Your task to perform on an android device: Open Youtube and go to the subscriptions tab Image 0: 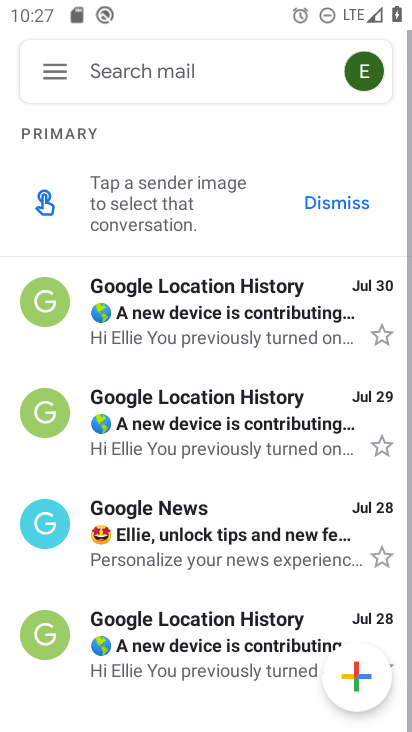
Step 0: press home button
Your task to perform on an android device: Open Youtube and go to the subscriptions tab Image 1: 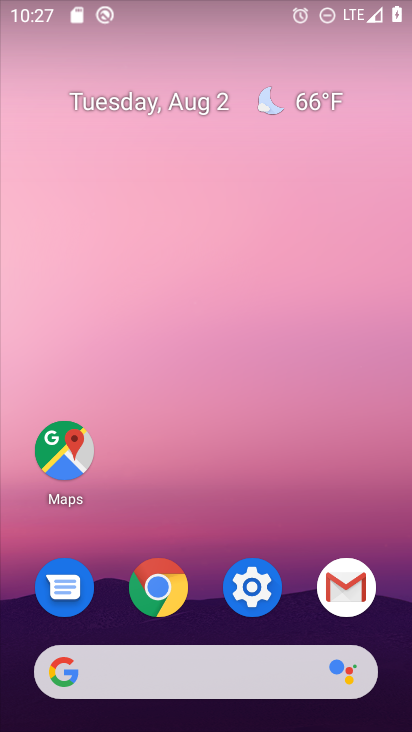
Step 1: drag from (246, 697) to (228, 0)
Your task to perform on an android device: Open Youtube and go to the subscriptions tab Image 2: 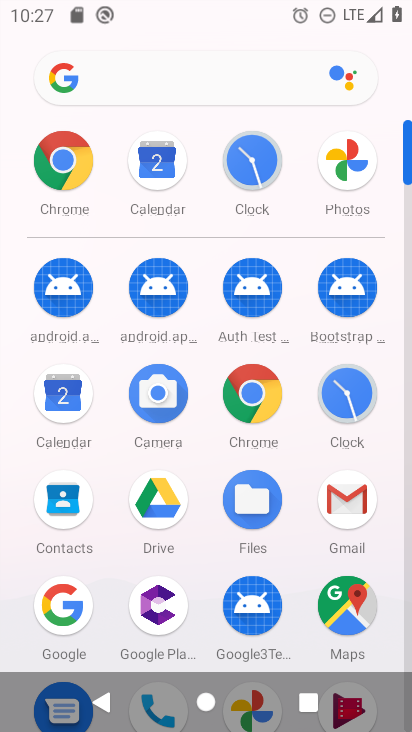
Step 2: drag from (126, 544) to (123, 252)
Your task to perform on an android device: Open Youtube and go to the subscriptions tab Image 3: 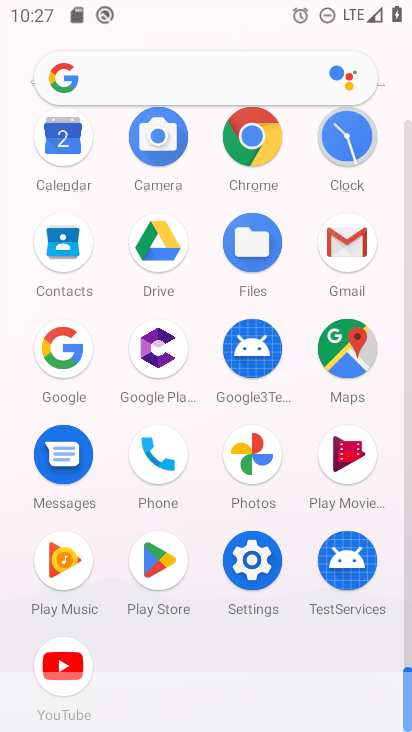
Step 3: click (59, 680)
Your task to perform on an android device: Open Youtube and go to the subscriptions tab Image 4: 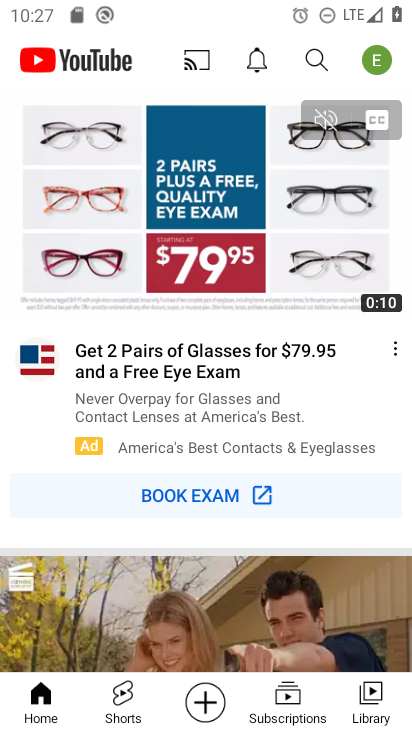
Step 4: click (278, 708)
Your task to perform on an android device: Open Youtube and go to the subscriptions tab Image 5: 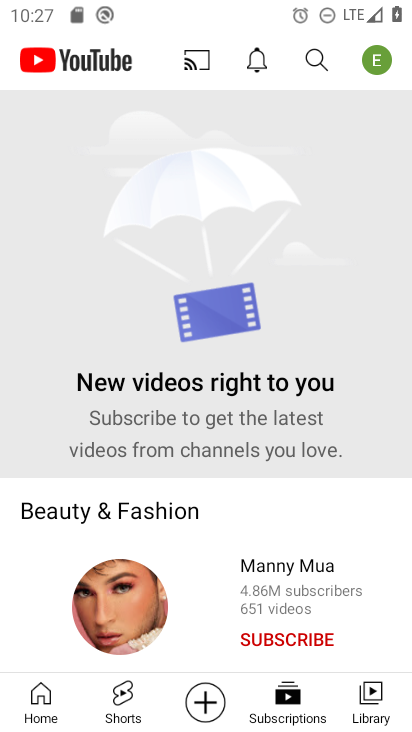
Step 5: task complete